Your task to perform on an android device: Go to Google maps Image 0: 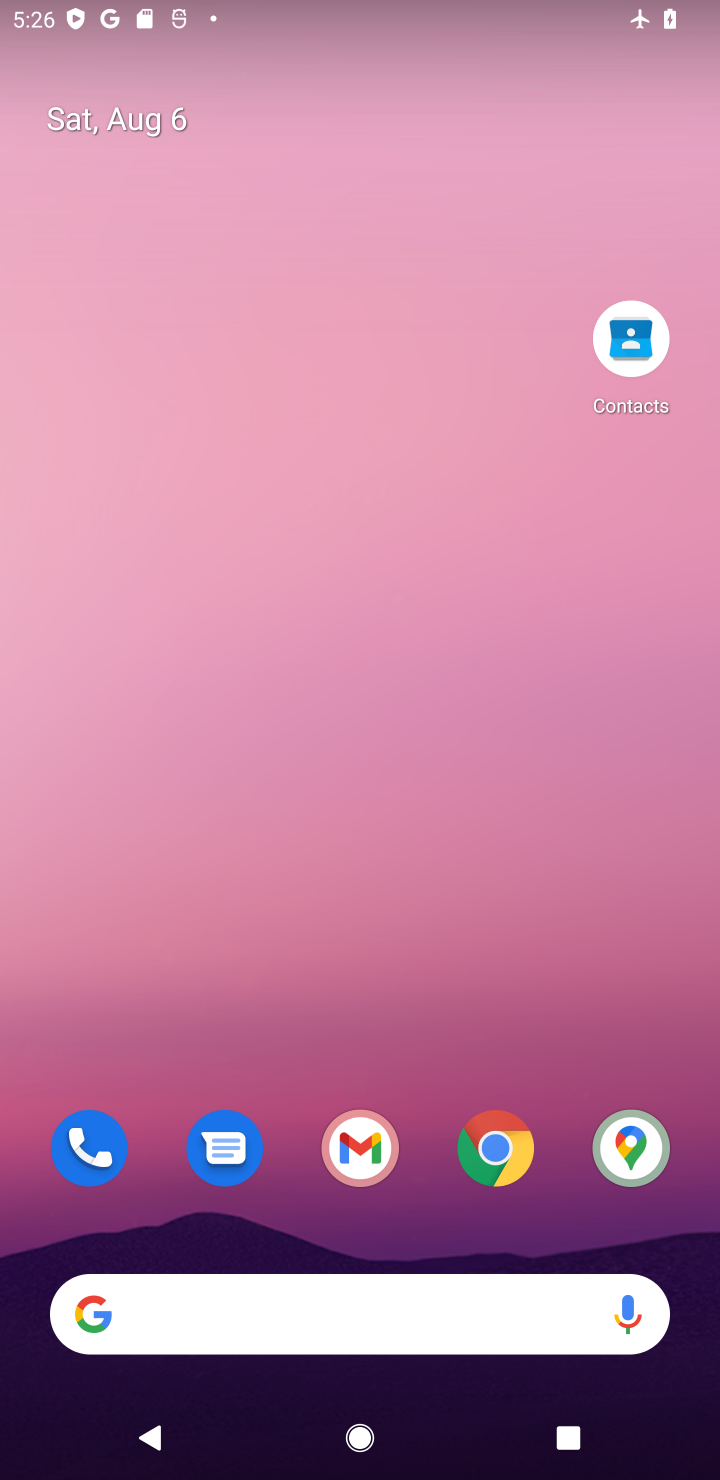
Step 0: drag from (369, 1248) to (311, 68)
Your task to perform on an android device: Go to Google maps Image 1: 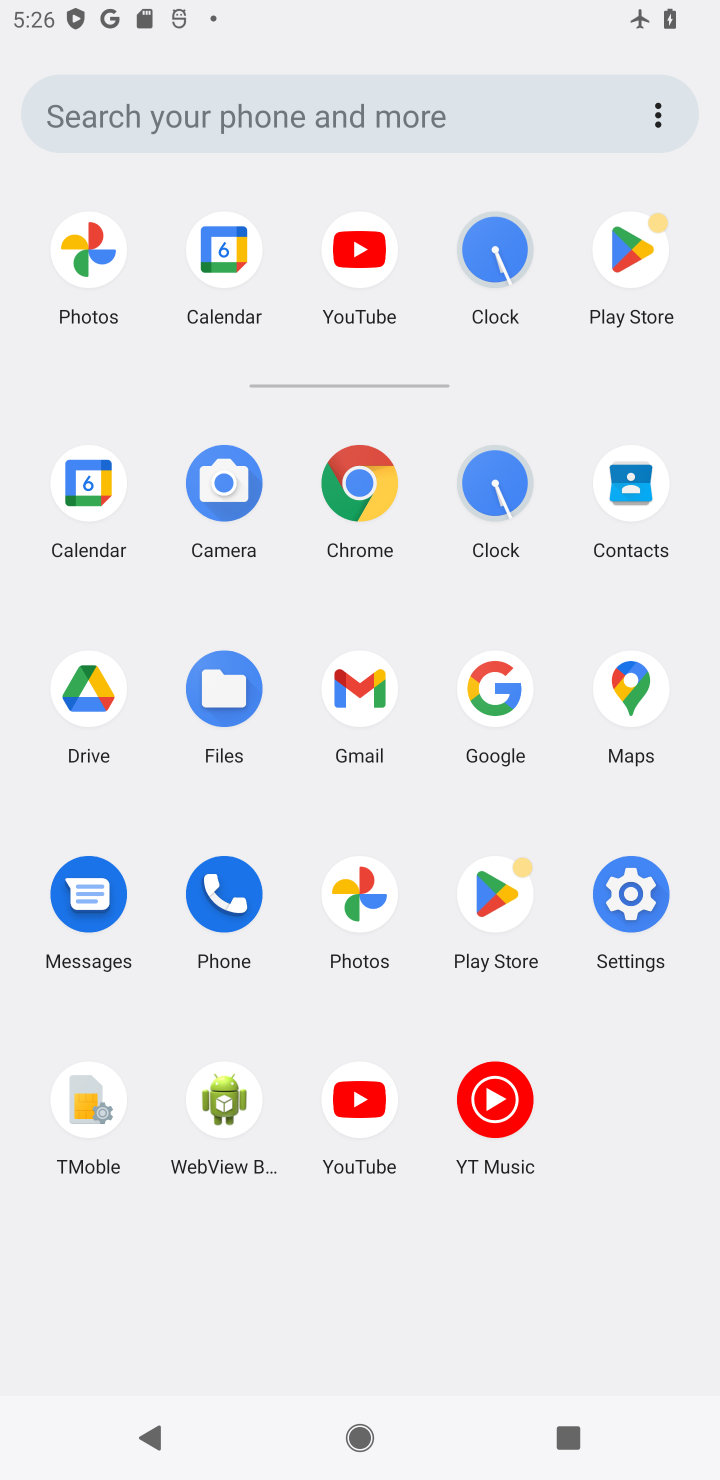
Step 1: click (640, 679)
Your task to perform on an android device: Go to Google maps Image 2: 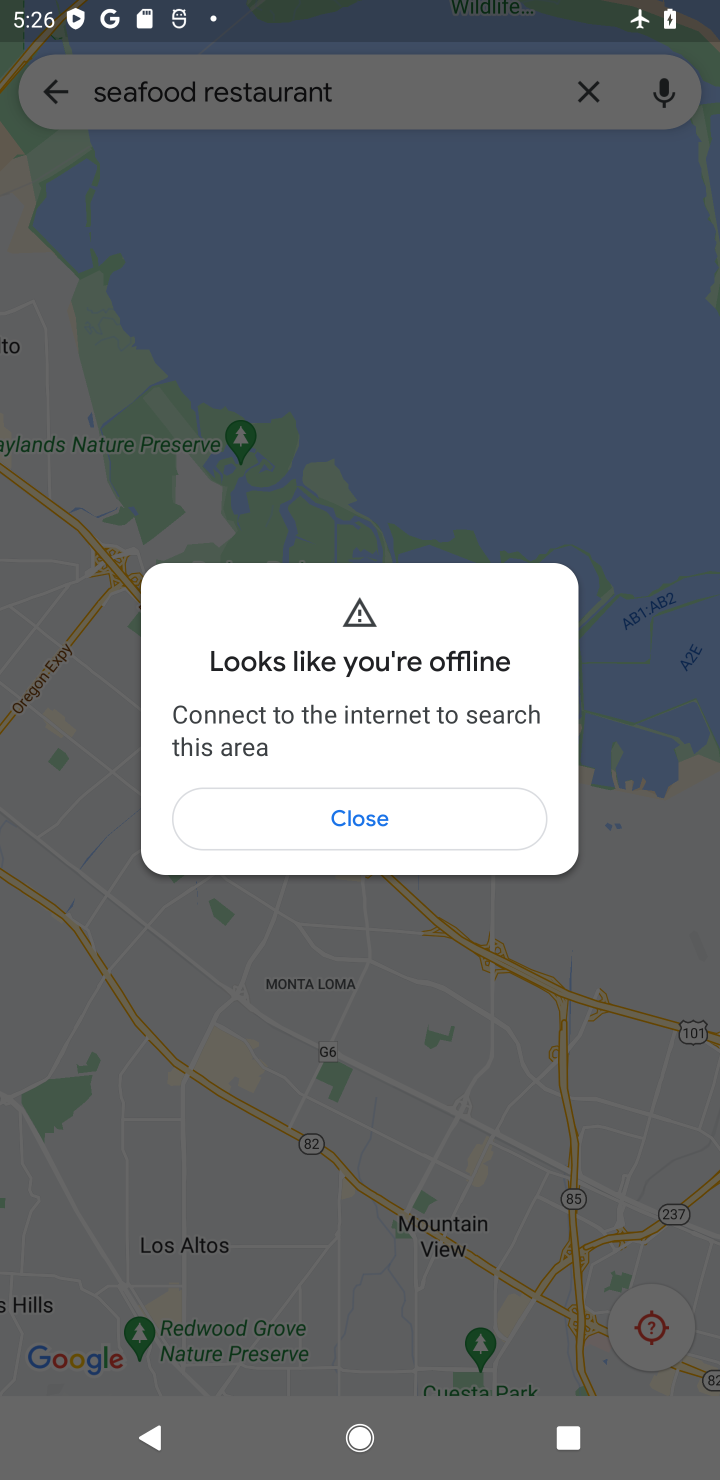
Step 2: click (461, 808)
Your task to perform on an android device: Go to Google maps Image 3: 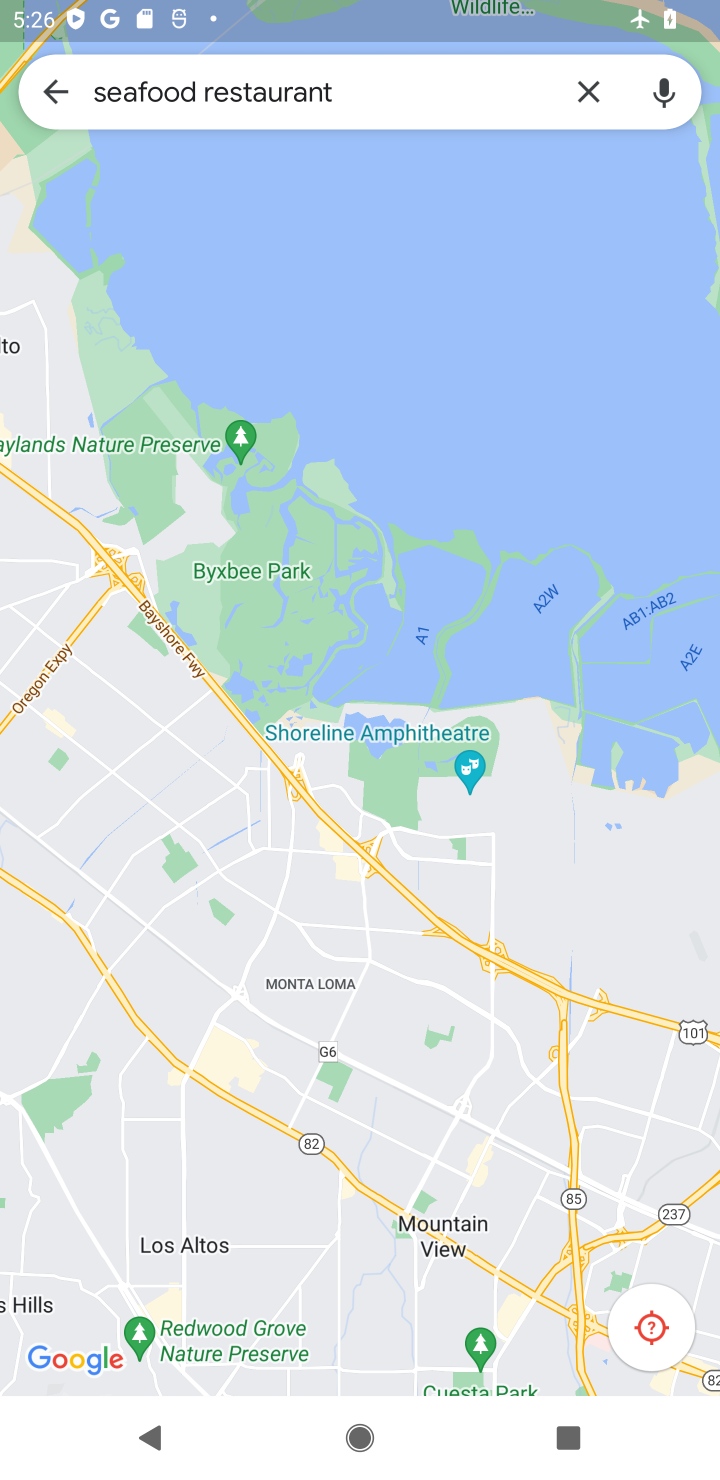
Step 3: task complete